Your task to perform on an android device: allow notifications from all sites in the chrome app Image 0: 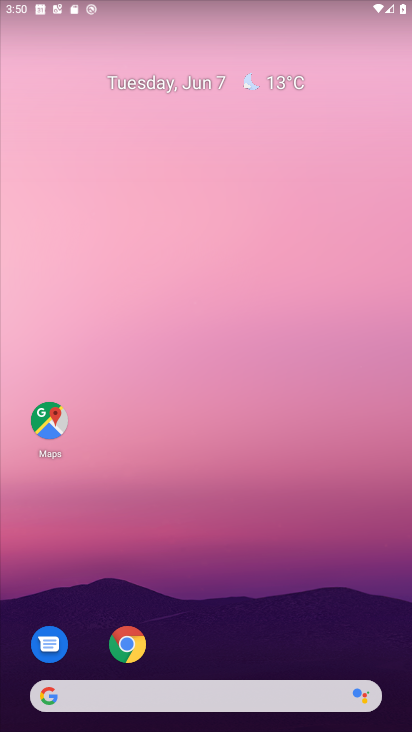
Step 0: drag from (358, 606) to (348, 226)
Your task to perform on an android device: allow notifications from all sites in the chrome app Image 1: 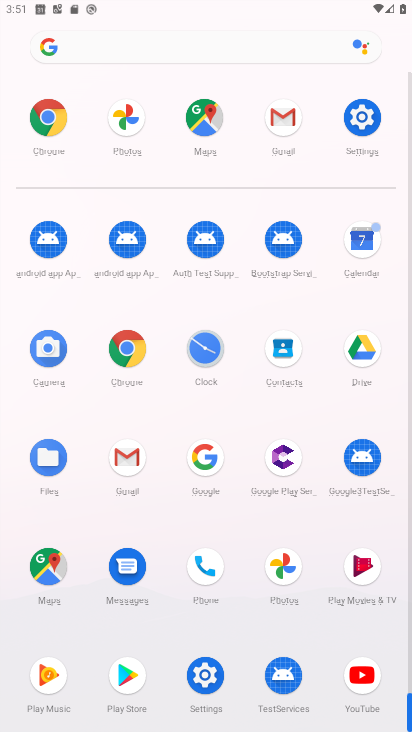
Step 1: click (121, 351)
Your task to perform on an android device: allow notifications from all sites in the chrome app Image 2: 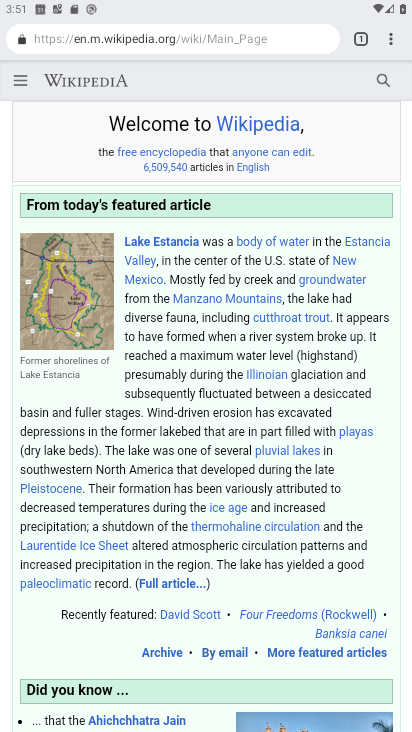
Step 2: click (389, 39)
Your task to perform on an android device: allow notifications from all sites in the chrome app Image 3: 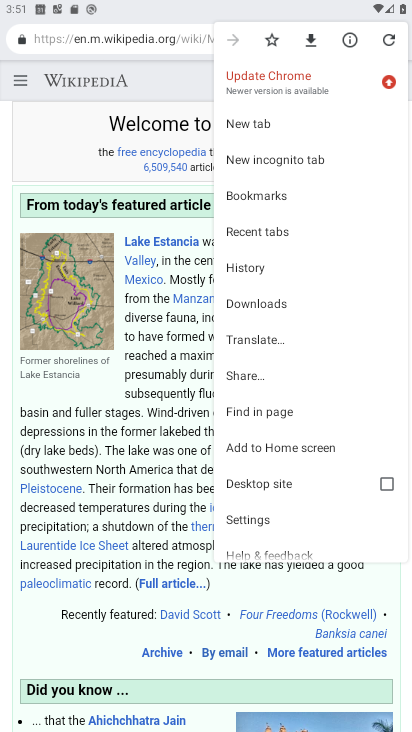
Step 3: click (283, 524)
Your task to perform on an android device: allow notifications from all sites in the chrome app Image 4: 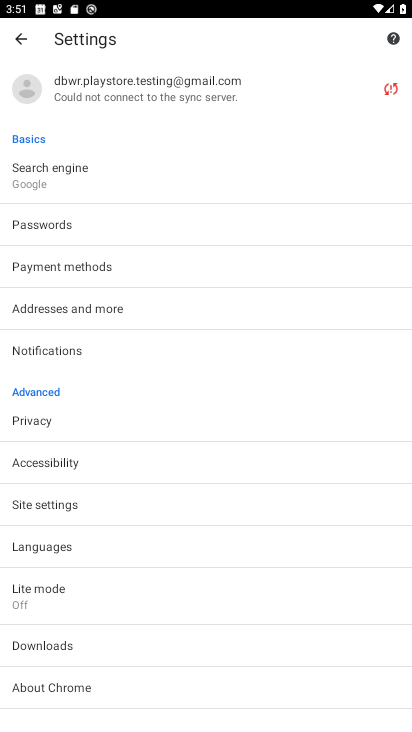
Step 4: drag from (326, 469) to (334, 387)
Your task to perform on an android device: allow notifications from all sites in the chrome app Image 5: 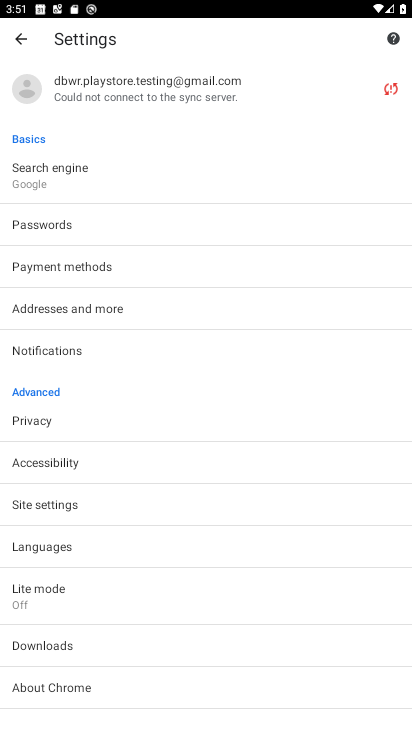
Step 5: click (245, 506)
Your task to perform on an android device: allow notifications from all sites in the chrome app Image 6: 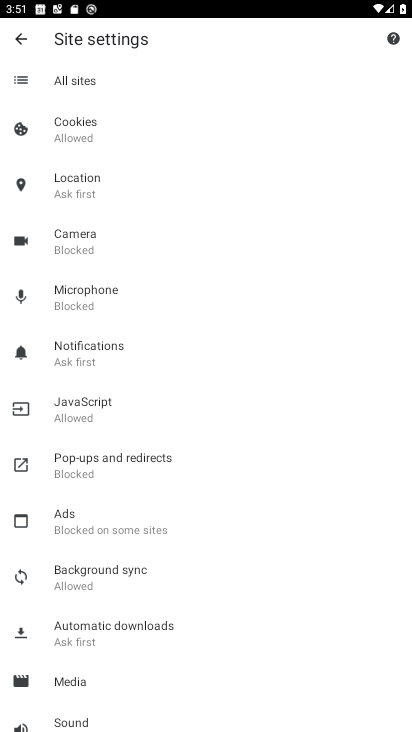
Step 6: drag from (245, 506) to (267, 386)
Your task to perform on an android device: allow notifications from all sites in the chrome app Image 7: 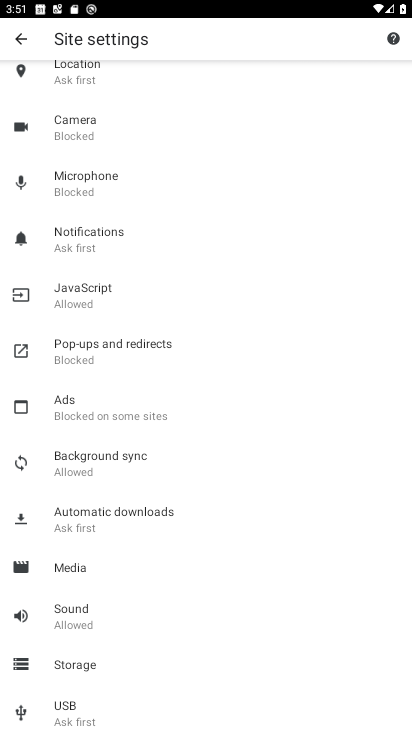
Step 7: drag from (245, 457) to (253, 307)
Your task to perform on an android device: allow notifications from all sites in the chrome app Image 8: 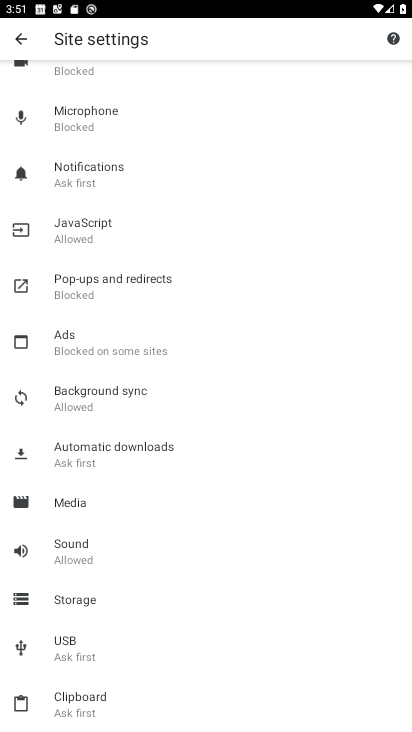
Step 8: click (133, 182)
Your task to perform on an android device: allow notifications from all sites in the chrome app Image 9: 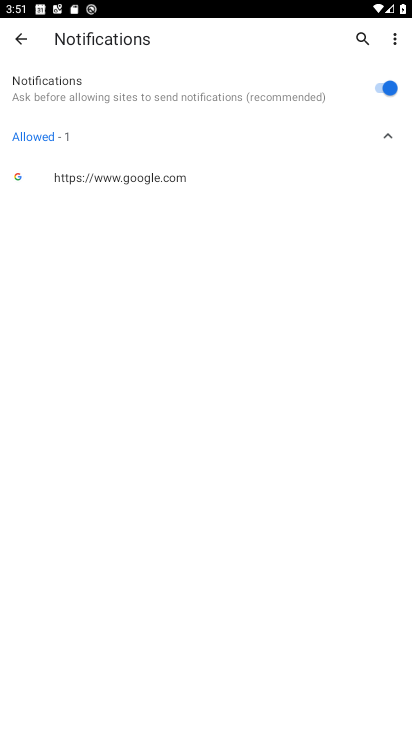
Step 9: task complete